Your task to perform on an android device: How much does a 2 bedroom apartment rent for in Washington DC? Image 0: 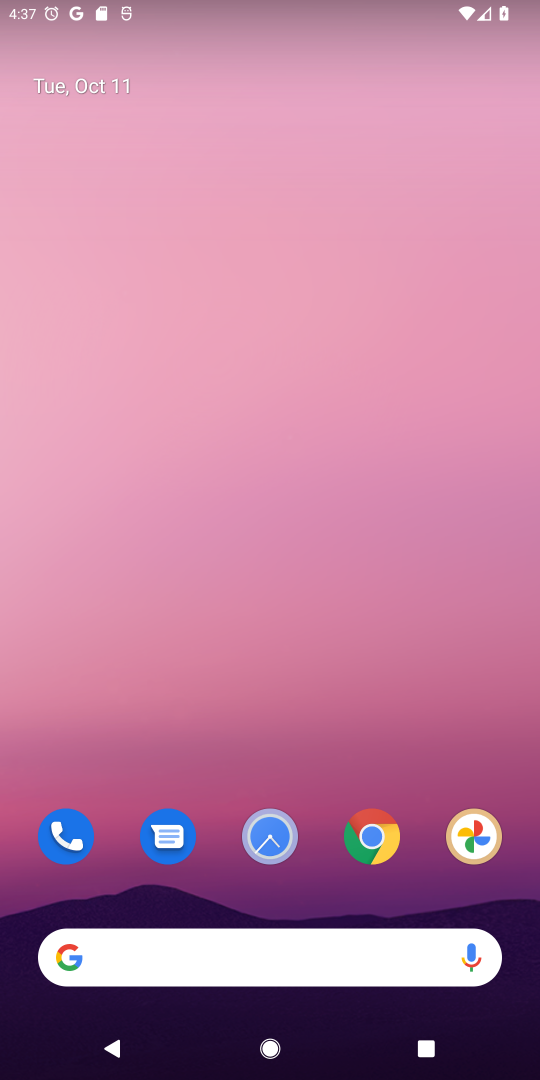
Step 0: click (273, 957)
Your task to perform on an android device: How much does a 2 bedroom apartment rent for in Washington DC? Image 1: 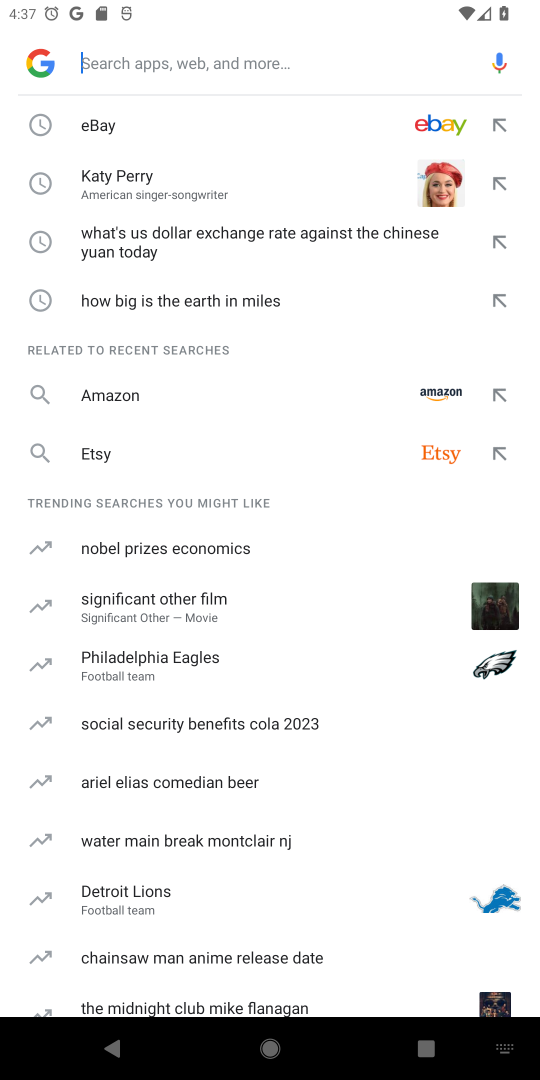
Step 1: type "How much does a 2 bedroom apartment rent for in Washington DC?"
Your task to perform on an android device: How much does a 2 bedroom apartment rent for in Washington DC? Image 2: 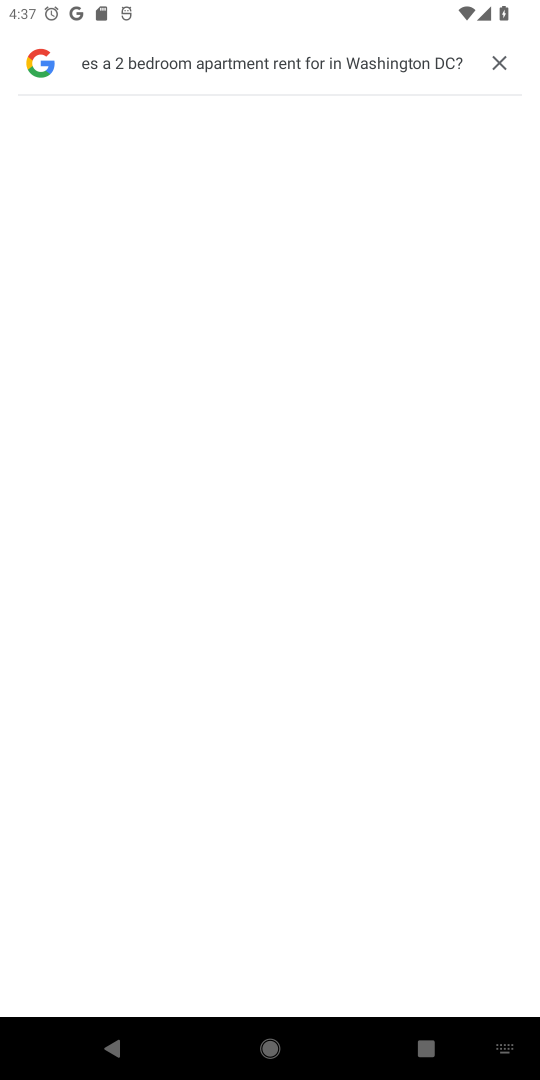
Step 2: task complete